Your task to perform on an android device: Add logitech g pro to the cart on ebay Image 0: 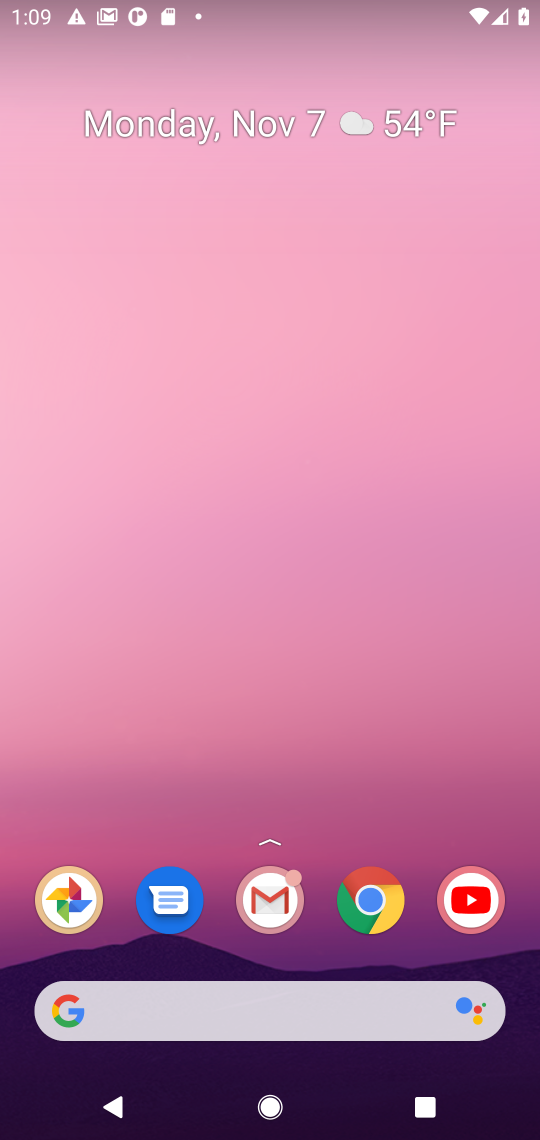
Step 0: click (276, 1029)
Your task to perform on an android device: Add logitech g pro to the cart on ebay Image 1: 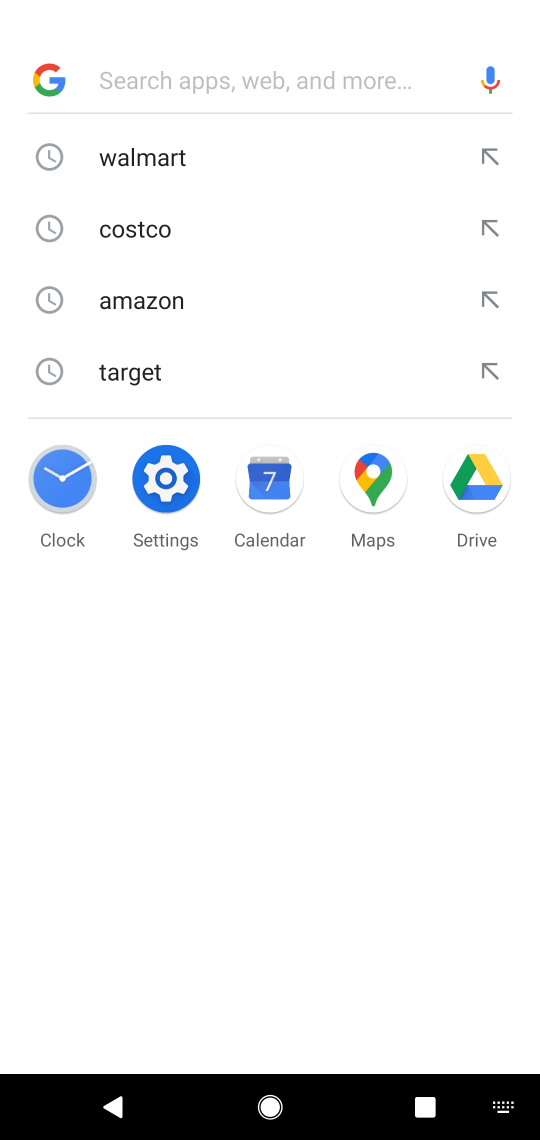
Step 1: type "ebay"
Your task to perform on an android device: Add logitech g pro to the cart on ebay Image 2: 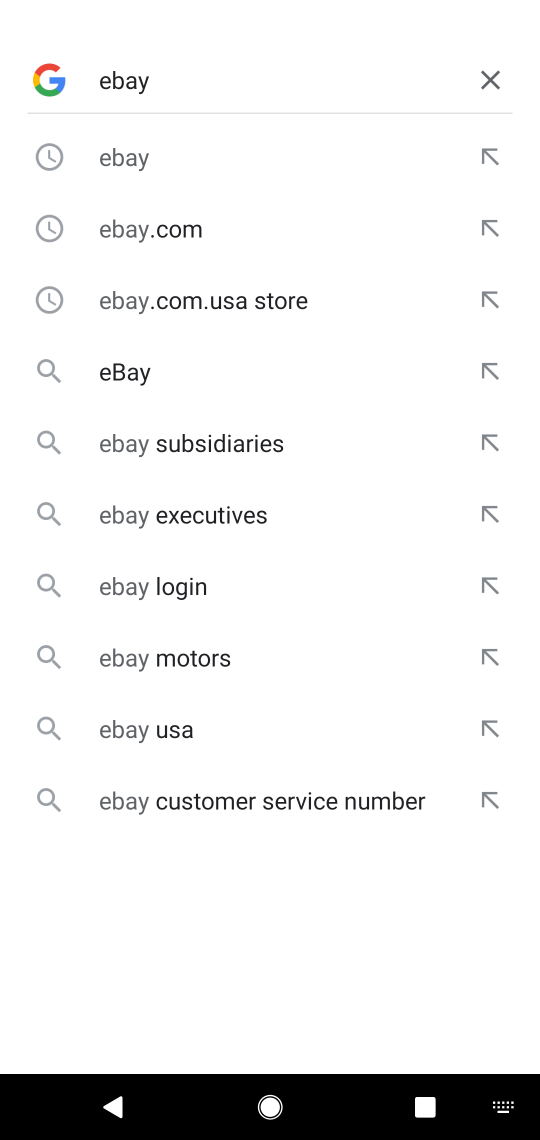
Step 2: click (164, 152)
Your task to perform on an android device: Add logitech g pro to the cart on ebay Image 3: 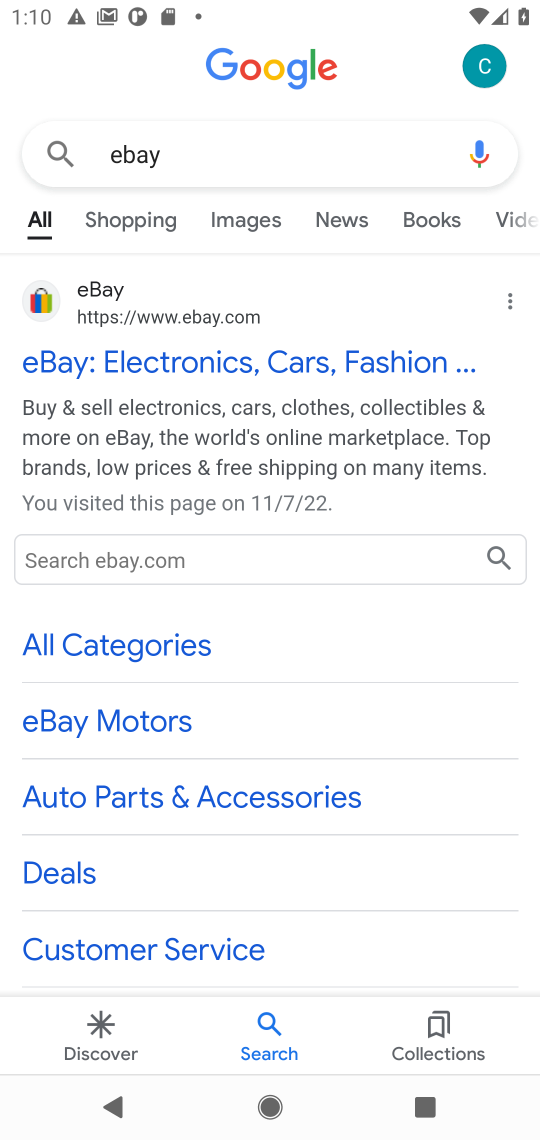
Step 3: click (160, 385)
Your task to perform on an android device: Add logitech g pro to the cart on ebay Image 4: 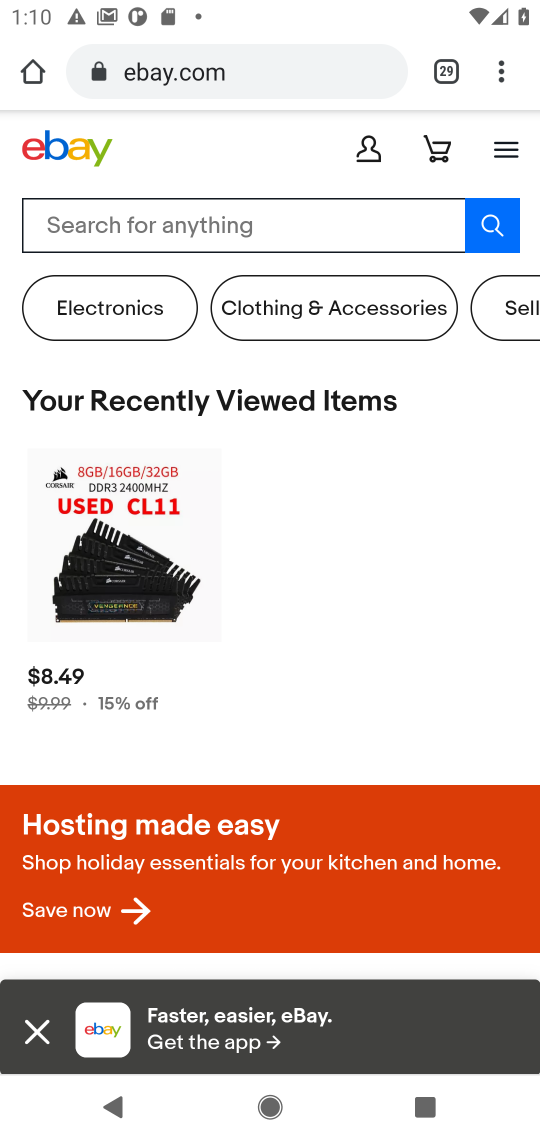
Step 4: task complete